Your task to perform on an android device: open chrome and create a bookmark for the current page Image 0: 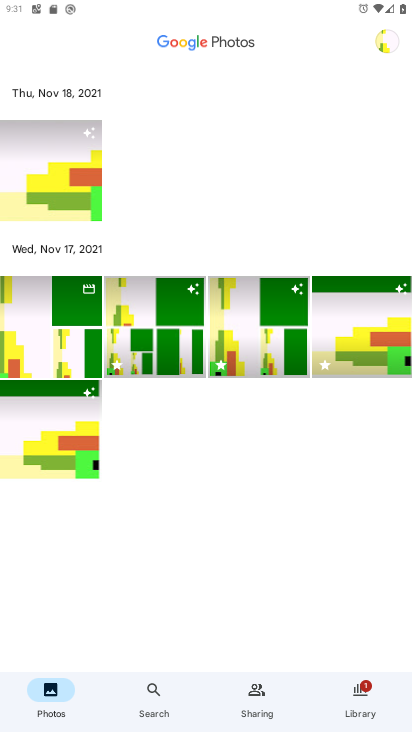
Step 0: press home button
Your task to perform on an android device: open chrome and create a bookmark for the current page Image 1: 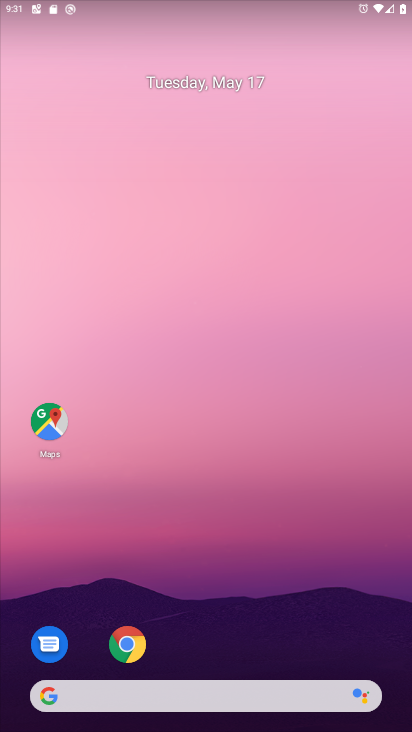
Step 1: click (124, 640)
Your task to perform on an android device: open chrome and create a bookmark for the current page Image 2: 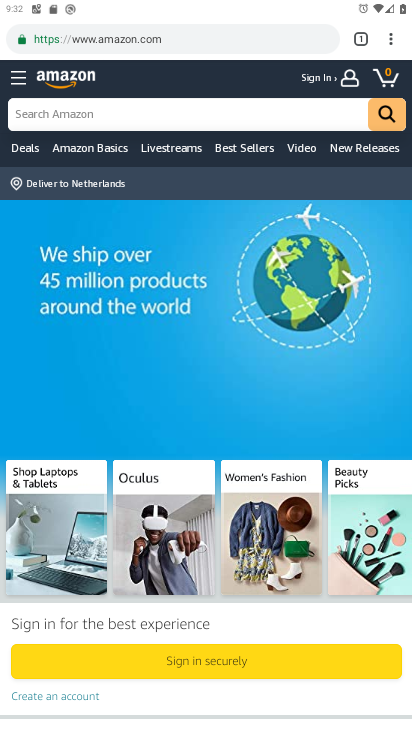
Step 2: click (391, 37)
Your task to perform on an android device: open chrome and create a bookmark for the current page Image 3: 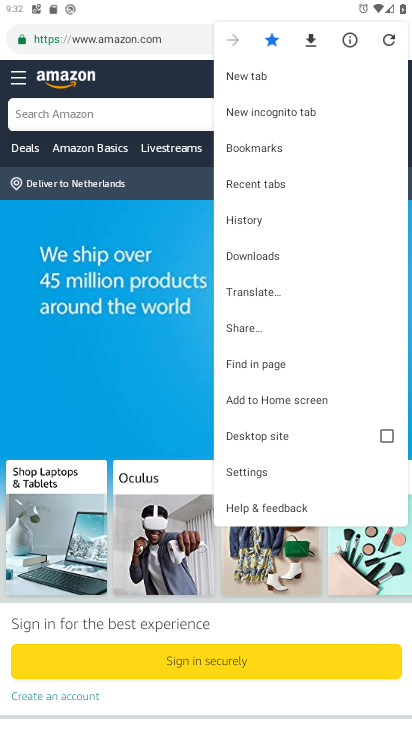
Step 3: task complete